Your task to perform on an android device: What's the weather going to be this weekend? Image 0: 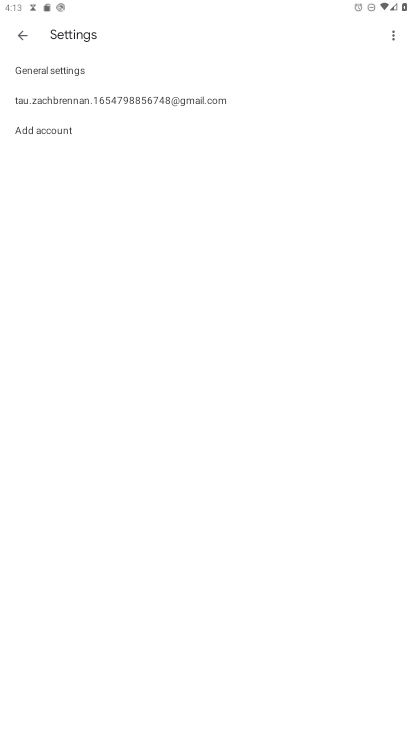
Step 0: press home button
Your task to perform on an android device: What's the weather going to be this weekend? Image 1: 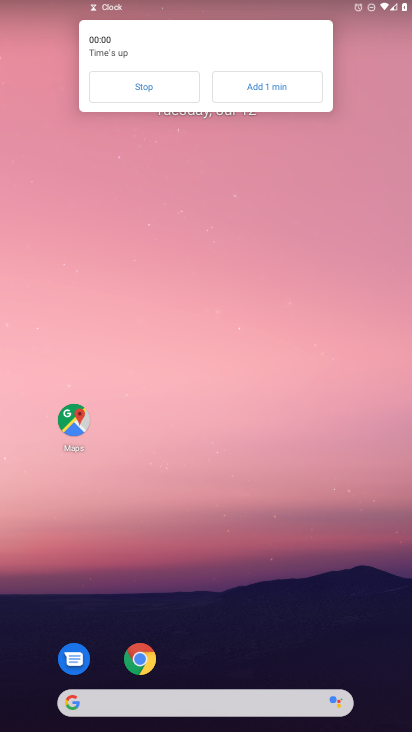
Step 1: drag from (205, 574) to (136, 0)
Your task to perform on an android device: What's the weather going to be this weekend? Image 2: 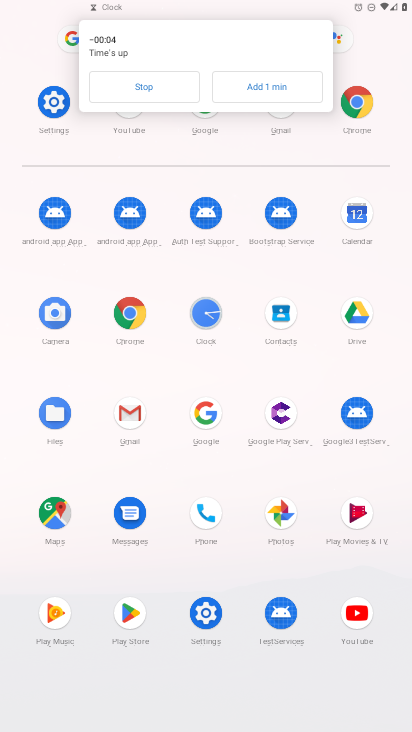
Step 2: click (136, 77)
Your task to perform on an android device: What's the weather going to be this weekend? Image 3: 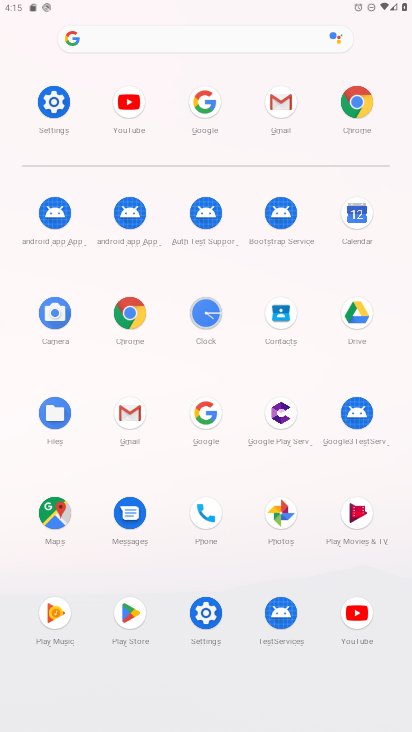
Step 3: click (205, 119)
Your task to perform on an android device: What's the weather going to be this weekend? Image 4: 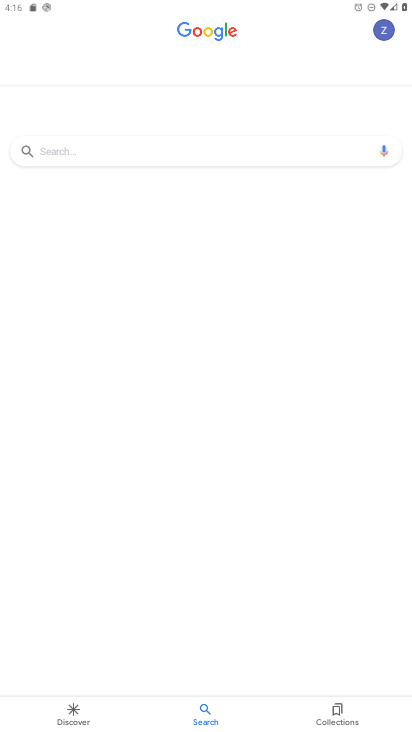
Step 4: click (82, 155)
Your task to perform on an android device: What's the weather going to be this weekend? Image 5: 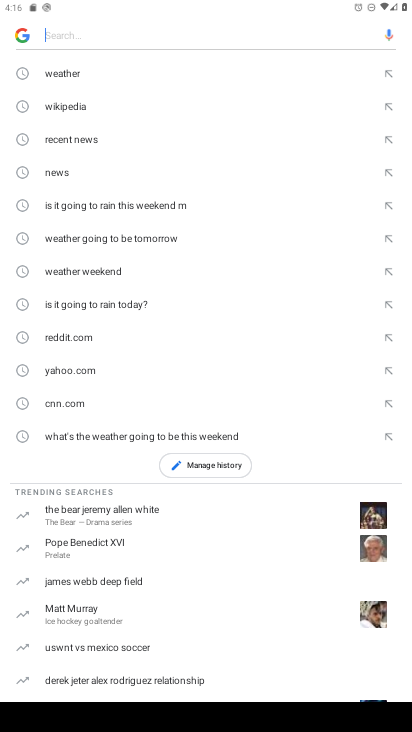
Step 5: click (70, 76)
Your task to perform on an android device: What's the weather going to be this weekend? Image 6: 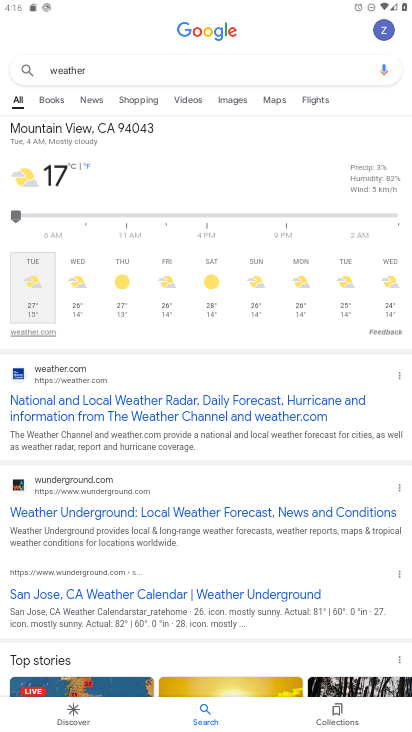
Step 6: task complete